Your task to perform on an android device: turn off wifi Image 0: 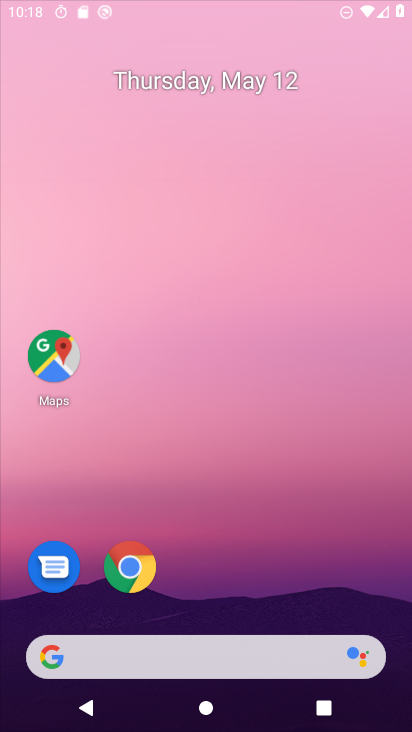
Step 0: drag from (279, 10) to (375, 168)
Your task to perform on an android device: turn off wifi Image 1: 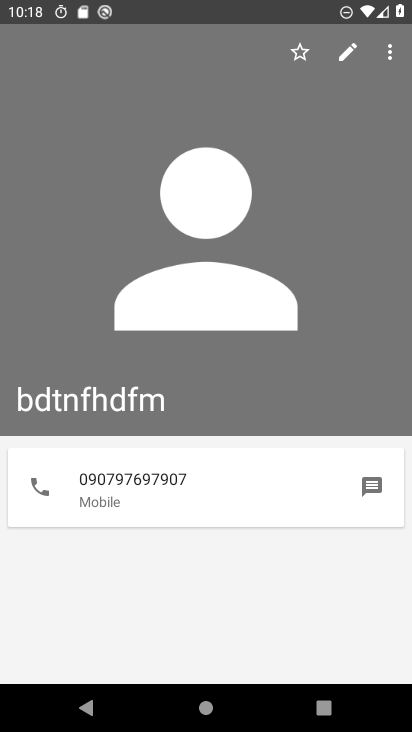
Step 1: press home button
Your task to perform on an android device: turn off wifi Image 2: 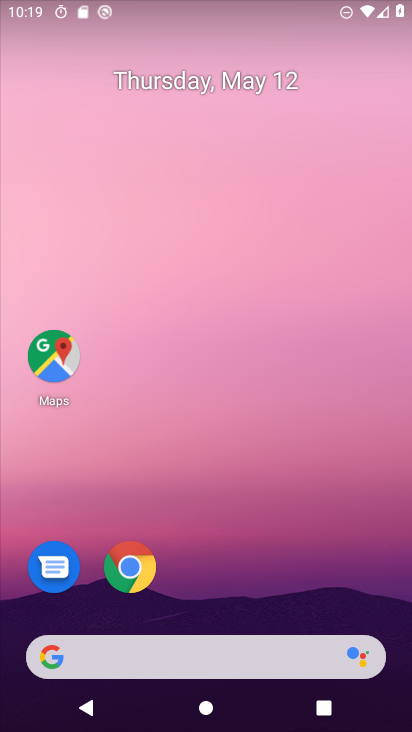
Step 2: drag from (201, 624) to (286, 7)
Your task to perform on an android device: turn off wifi Image 3: 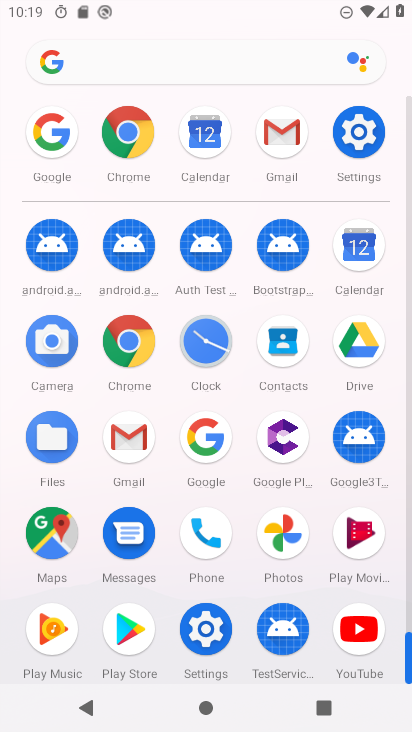
Step 3: click (357, 148)
Your task to perform on an android device: turn off wifi Image 4: 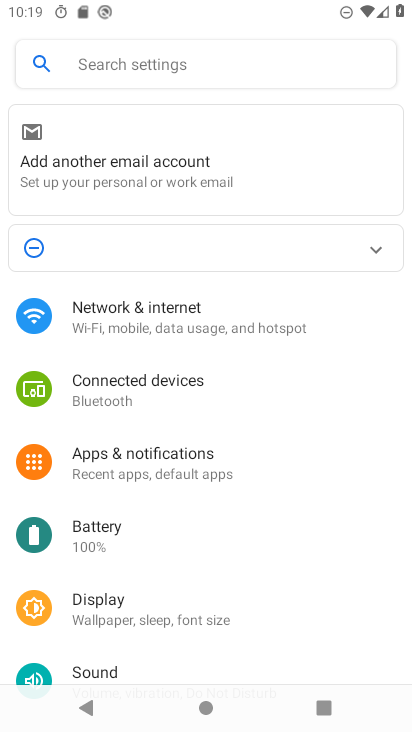
Step 4: drag from (227, 519) to (222, 399)
Your task to perform on an android device: turn off wifi Image 5: 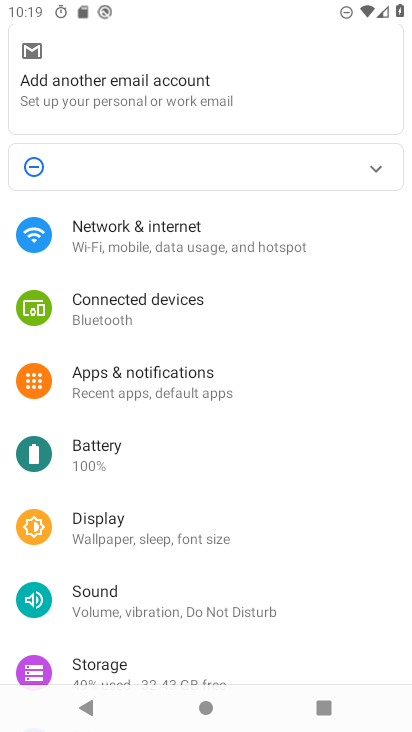
Step 5: click (252, 263)
Your task to perform on an android device: turn off wifi Image 6: 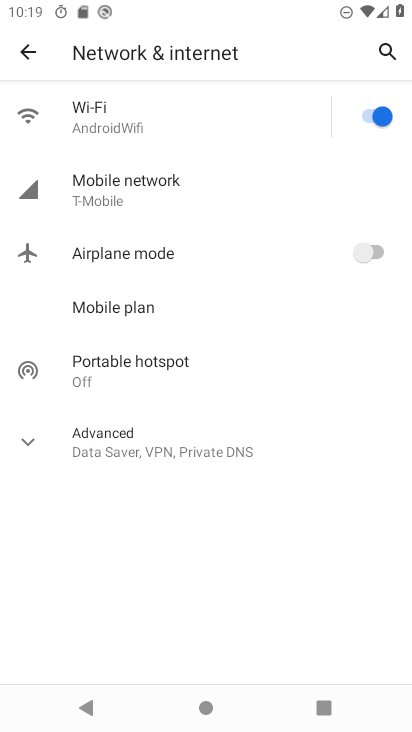
Step 6: click (378, 117)
Your task to perform on an android device: turn off wifi Image 7: 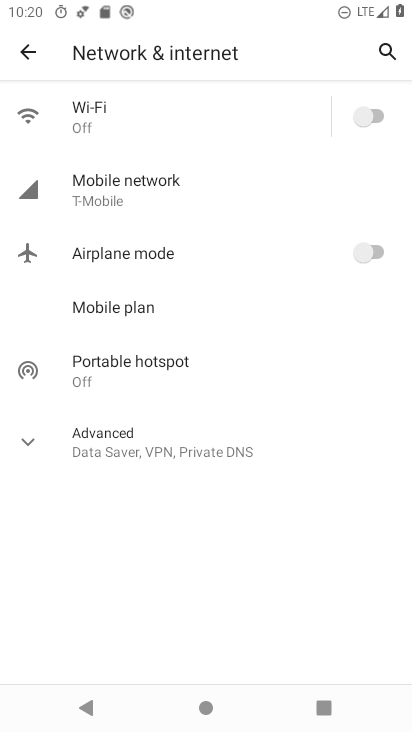
Step 7: task complete